Your task to perform on an android device: Search for asus zenbook on costco, select the first entry, add it to the cart, then select checkout. Image 0: 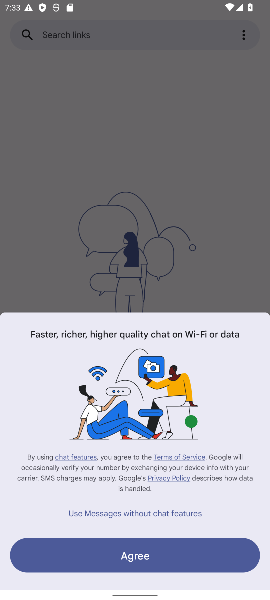
Step 0: press home button
Your task to perform on an android device: Search for asus zenbook on costco, select the first entry, add it to the cart, then select checkout. Image 1: 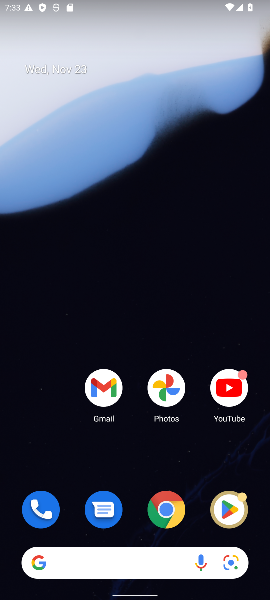
Step 1: click (162, 506)
Your task to perform on an android device: Search for asus zenbook on costco, select the first entry, add it to the cart, then select checkout. Image 2: 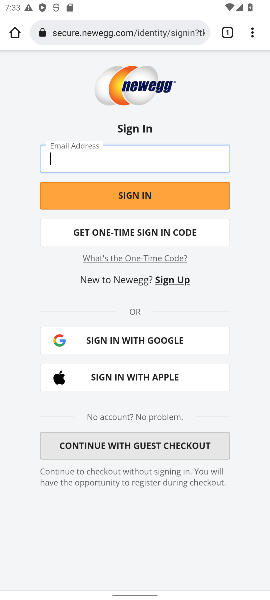
Step 2: click (160, 36)
Your task to perform on an android device: Search for asus zenbook on costco, select the first entry, add it to the cart, then select checkout. Image 3: 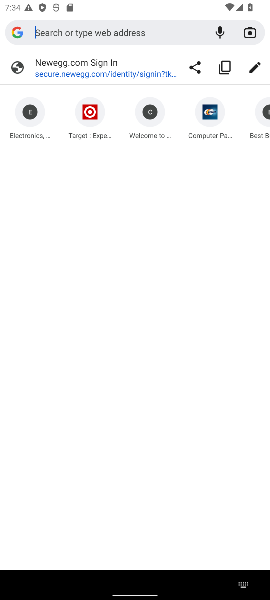
Step 3: type "costco"
Your task to perform on an android device: Search for asus zenbook on costco, select the first entry, add it to the cart, then select checkout. Image 4: 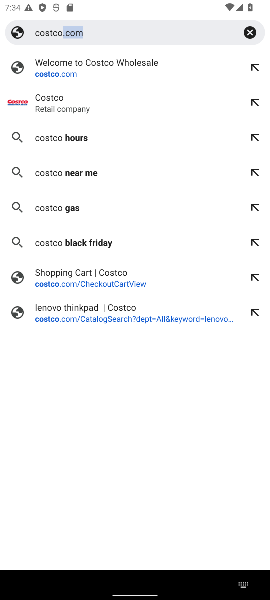
Step 4: click (147, 68)
Your task to perform on an android device: Search for asus zenbook on costco, select the first entry, add it to the cart, then select checkout. Image 5: 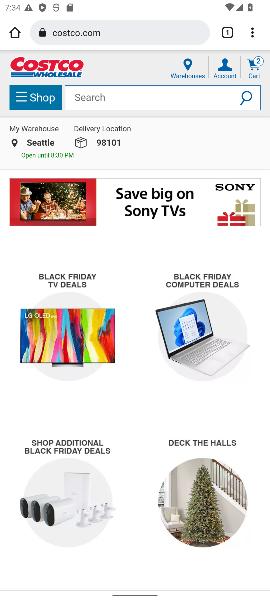
Step 5: click (135, 97)
Your task to perform on an android device: Search for asus zenbook on costco, select the first entry, add it to the cart, then select checkout. Image 6: 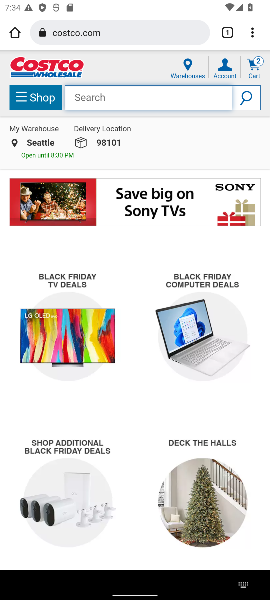
Step 6: click (191, 98)
Your task to perform on an android device: Search for asus zenbook on costco, select the first entry, add it to the cart, then select checkout. Image 7: 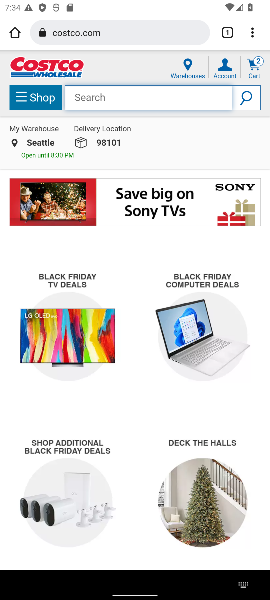
Step 7: type "asus zenbook"
Your task to perform on an android device: Search for asus zenbook on costco, select the first entry, add it to the cart, then select checkout. Image 8: 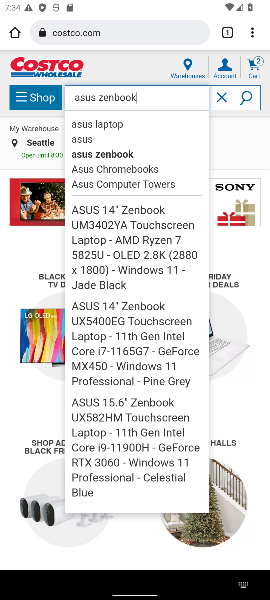
Step 8: press enter
Your task to perform on an android device: Search for asus zenbook on costco, select the first entry, add it to the cart, then select checkout. Image 9: 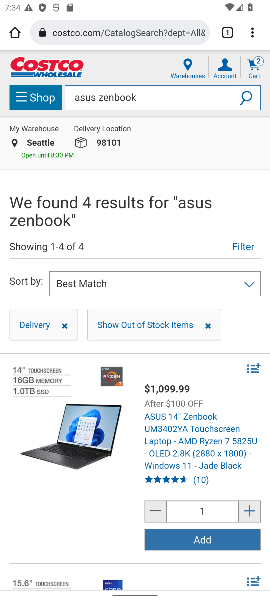
Step 9: click (226, 539)
Your task to perform on an android device: Search for asus zenbook on costco, select the first entry, add it to the cart, then select checkout. Image 10: 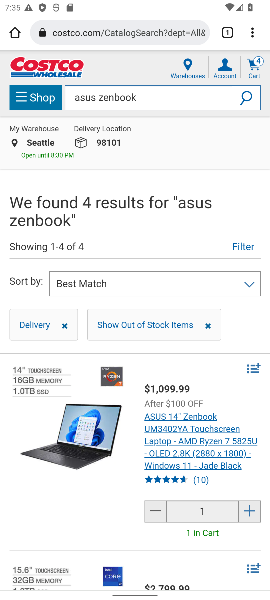
Step 10: task complete